Your task to perform on an android device: Open display settings Image 0: 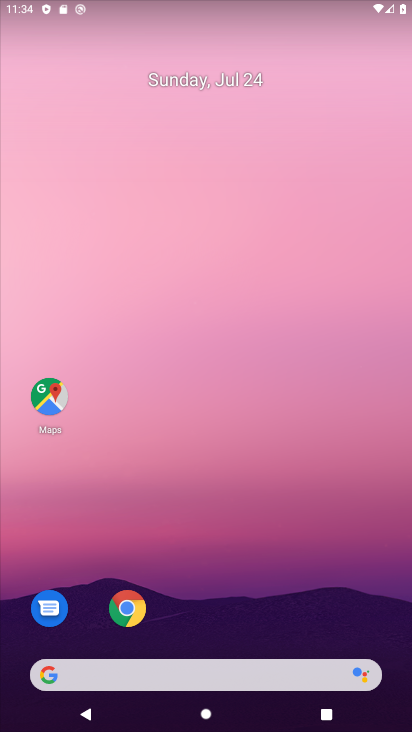
Step 0: drag from (253, 470) to (313, 30)
Your task to perform on an android device: Open display settings Image 1: 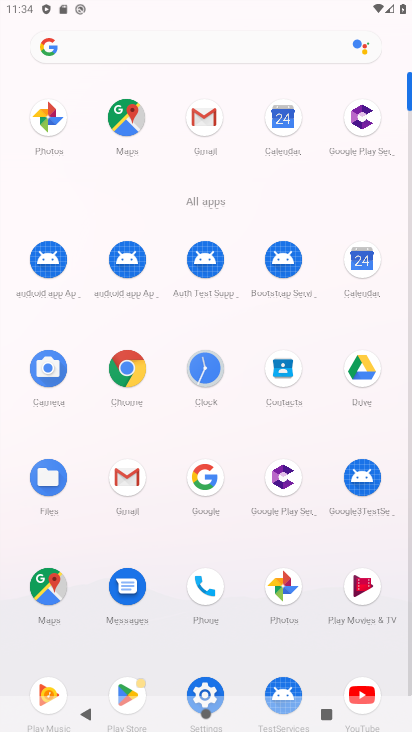
Step 1: click (126, 380)
Your task to perform on an android device: Open display settings Image 2: 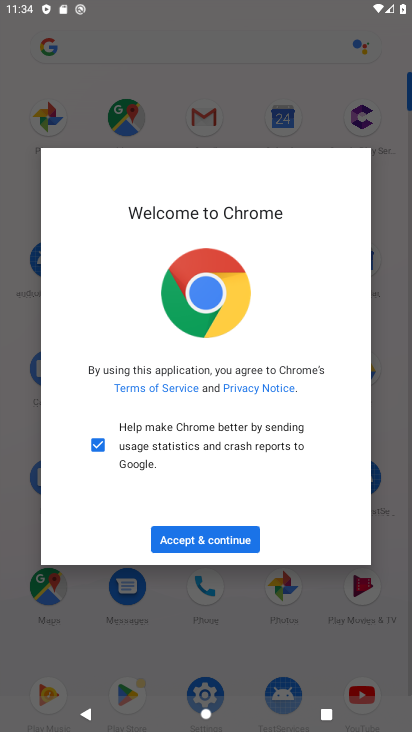
Step 2: click (200, 536)
Your task to perform on an android device: Open display settings Image 3: 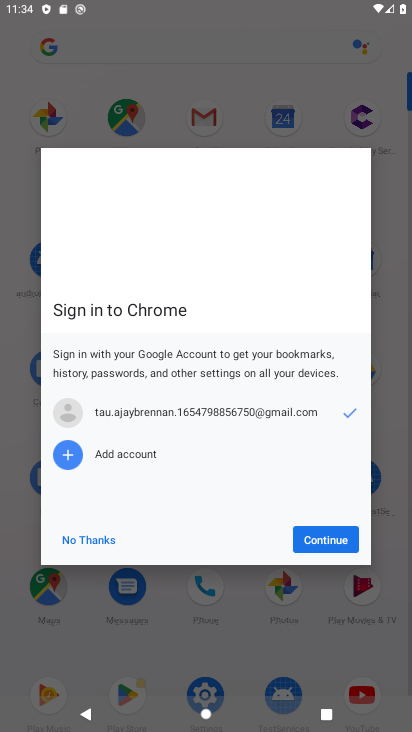
Step 3: press home button
Your task to perform on an android device: Open display settings Image 4: 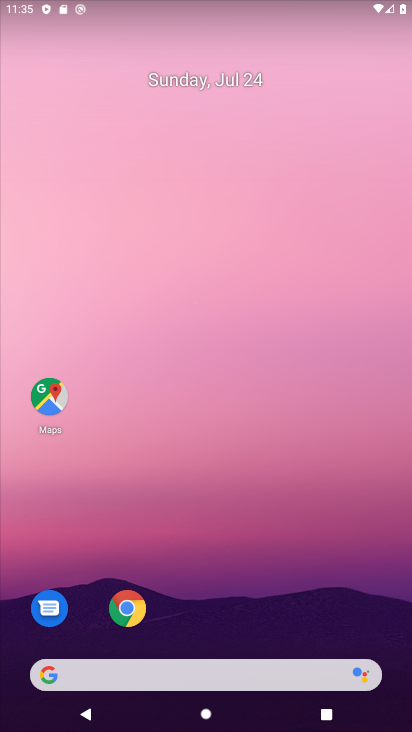
Step 4: drag from (219, 639) to (274, 230)
Your task to perform on an android device: Open display settings Image 5: 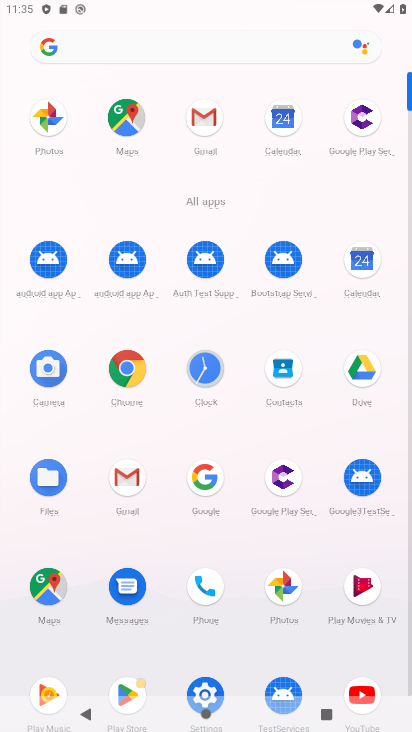
Step 5: click (201, 687)
Your task to perform on an android device: Open display settings Image 6: 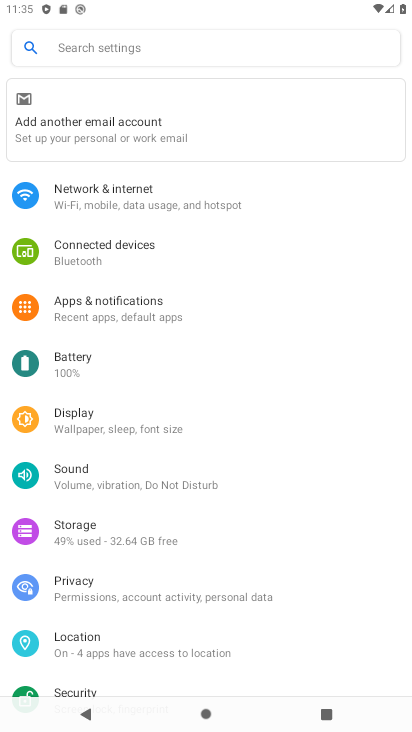
Step 6: click (119, 427)
Your task to perform on an android device: Open display settings Image 7: 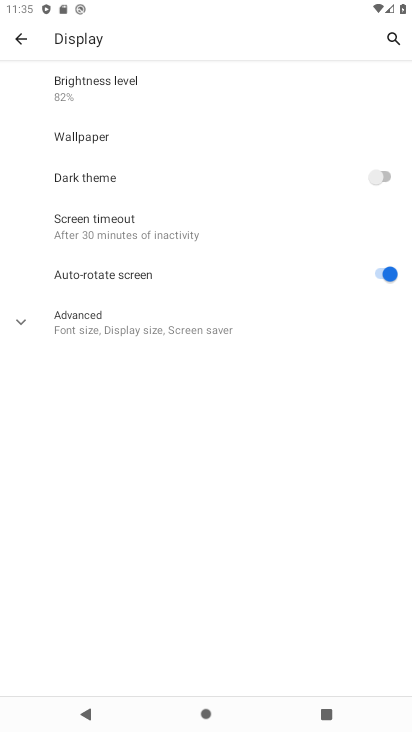
Step 7: task complete